Your task to perform on an android device: turn pop-ups off in chrome Image 0: 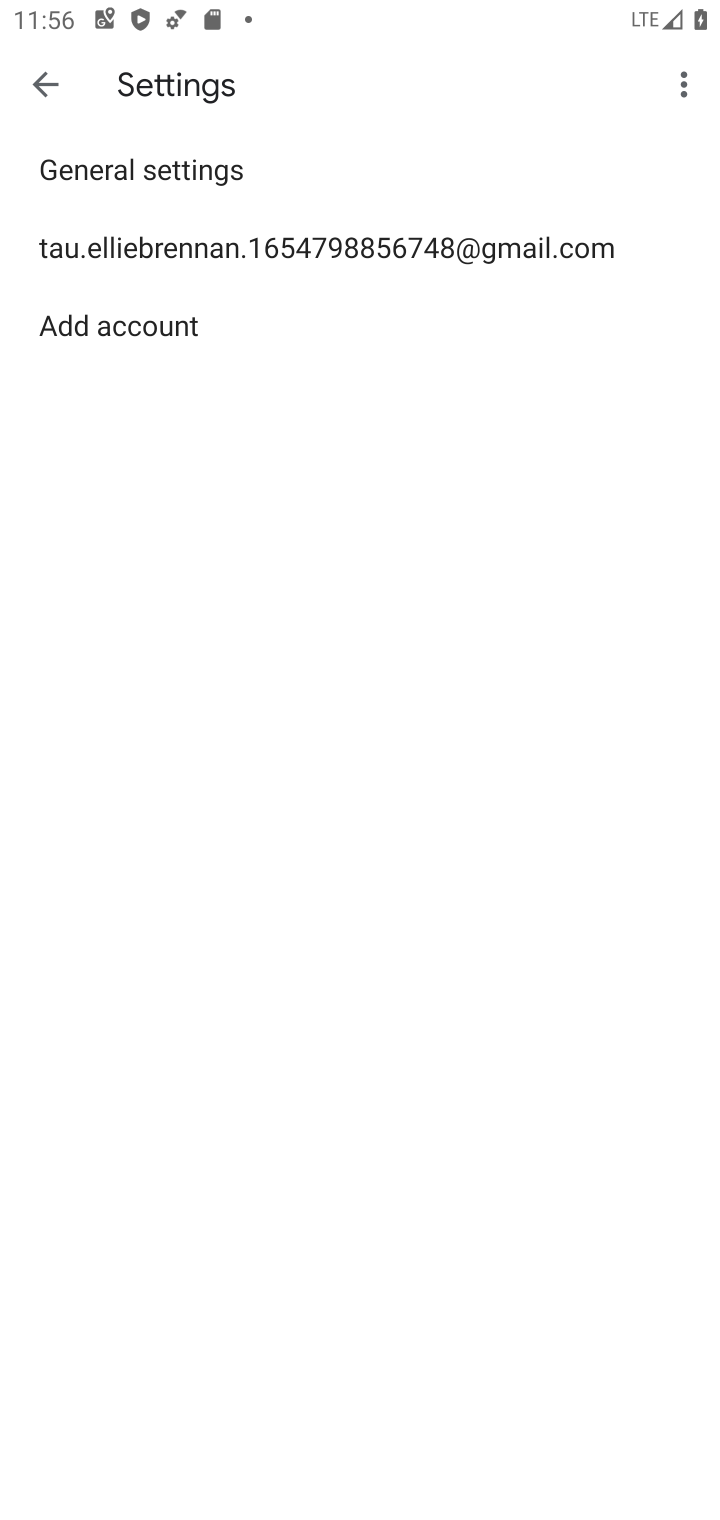
Step 0: press back button
Your task to perform on an android device: turn pop-ups off in chrome Image 1: 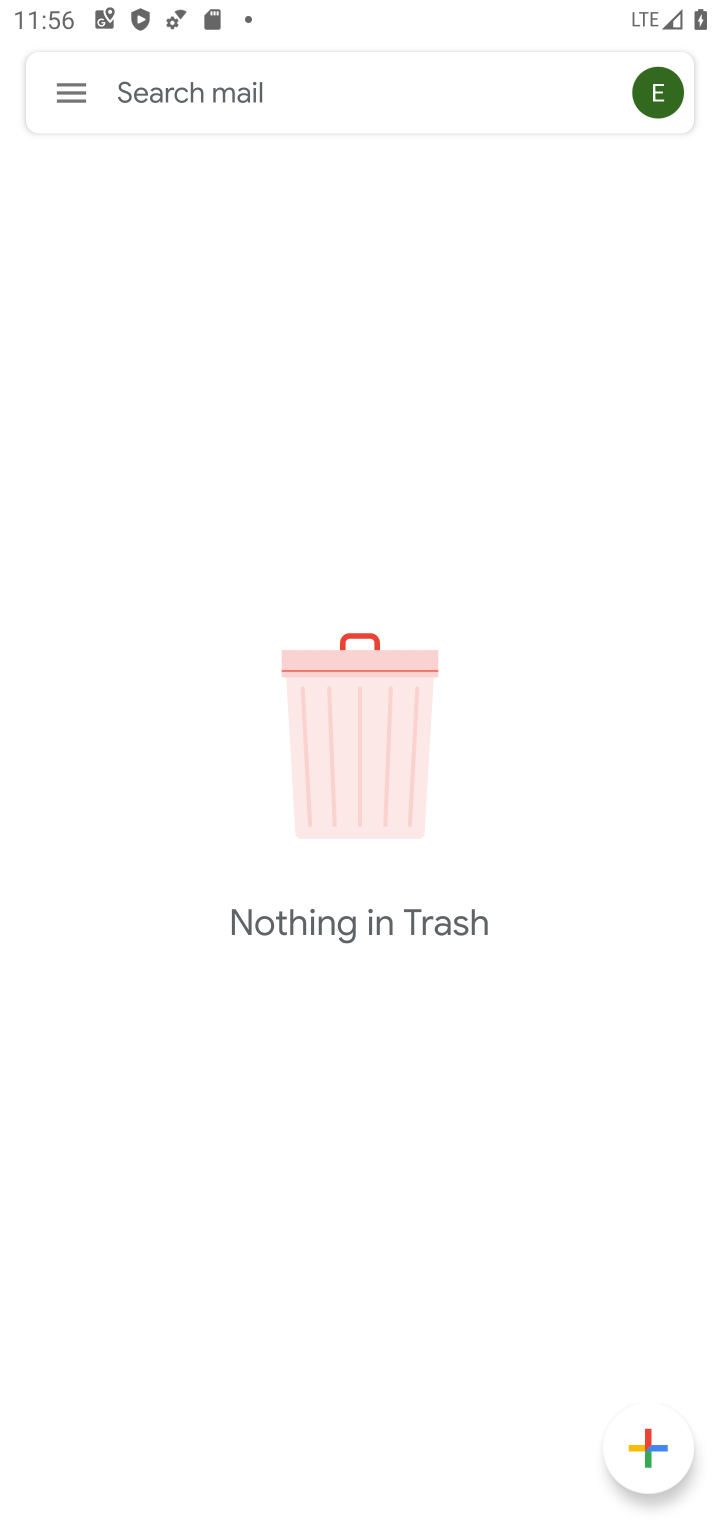
Step 1: press back button
Your task to perform on an android device: turn pop-ups off in chrome Image 2: 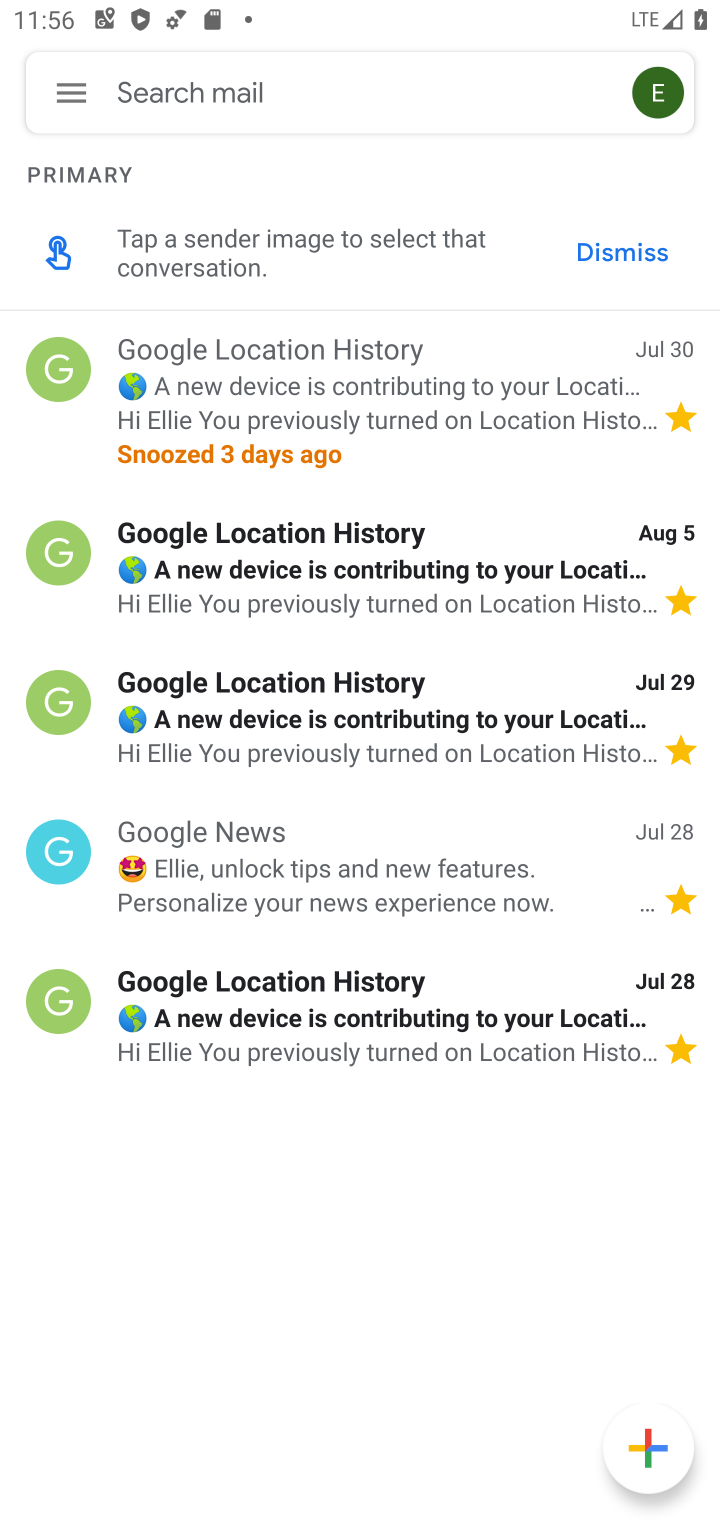
Step 2: press back button
Your task to perform on an android device: turn pop-ups off in chrome Image 3: 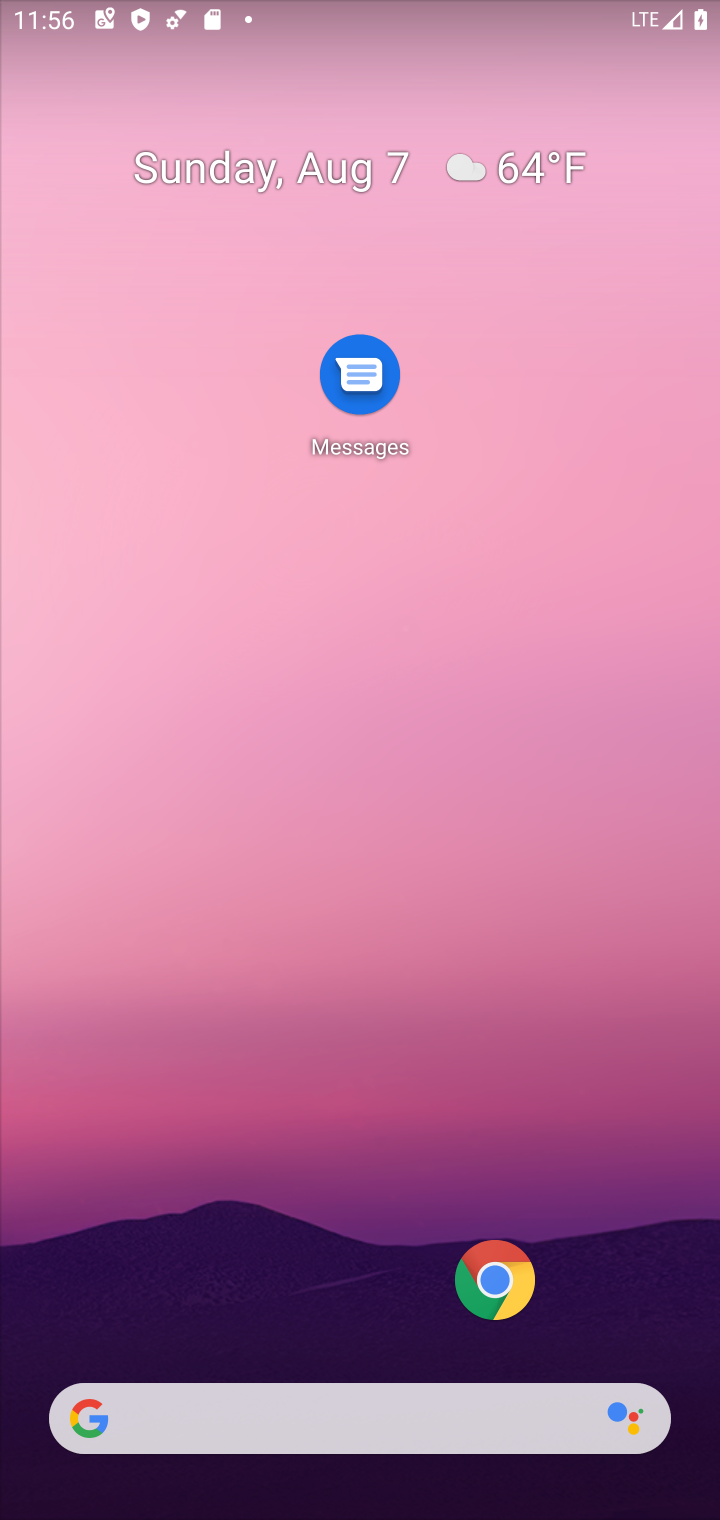
Step 3: click (484, 1250)
Your task to perform on an android device: turn pop-ups off in chrome Image 4: 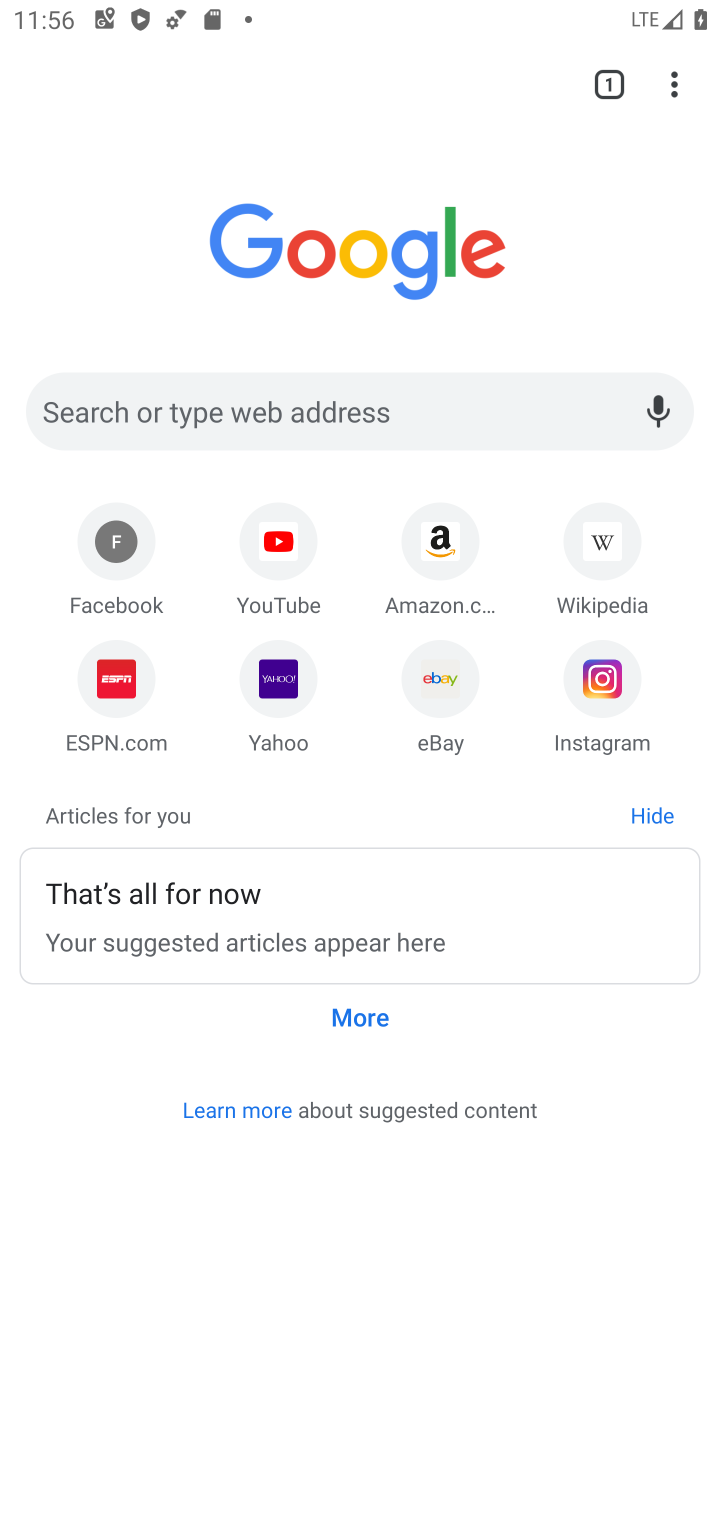
Step 4: drag from (676, 90) to (397, 721)
Your task to perform on an android device: turn pop-ups off in chrome Image 5: 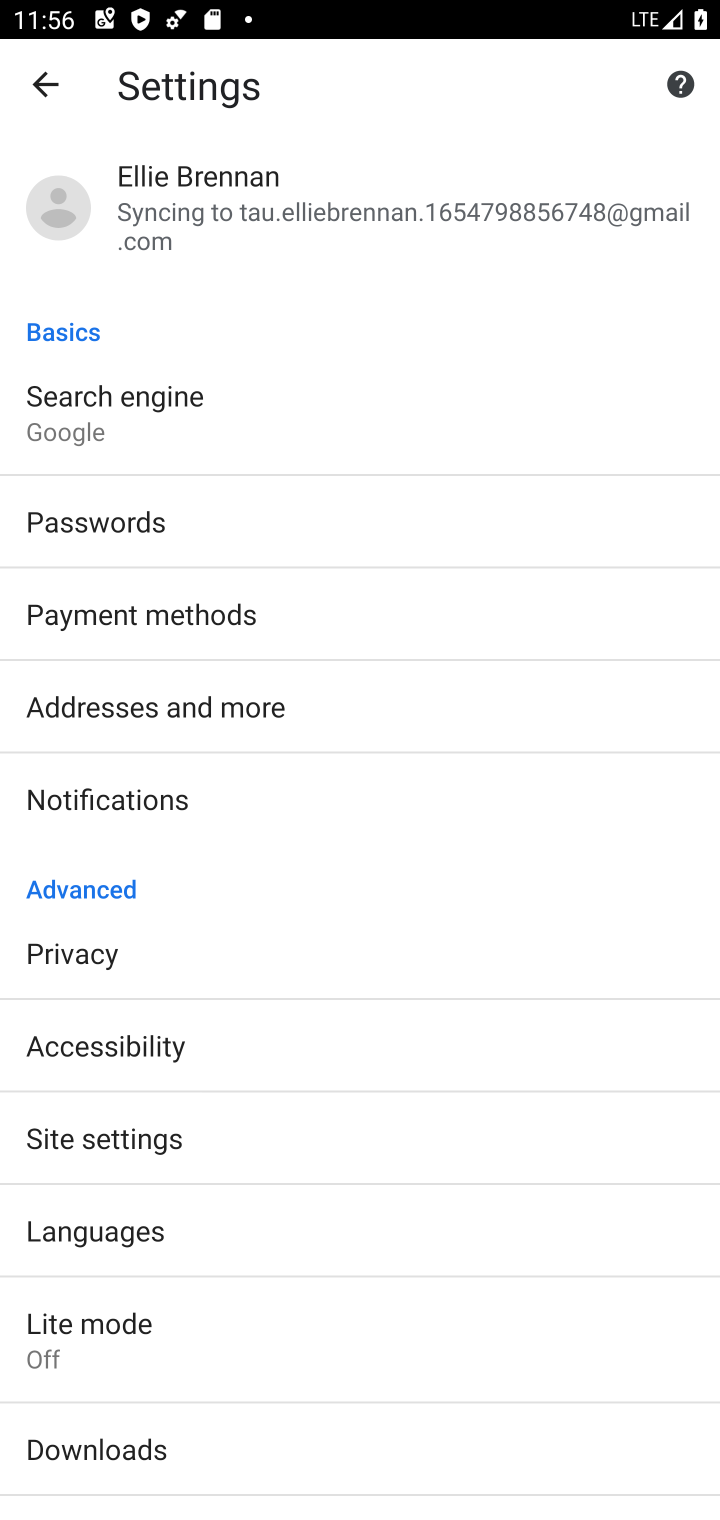
Step 5: click (150, 1157)
Your task to perform on an android device: turn pop-ups off in chrome Image 6: 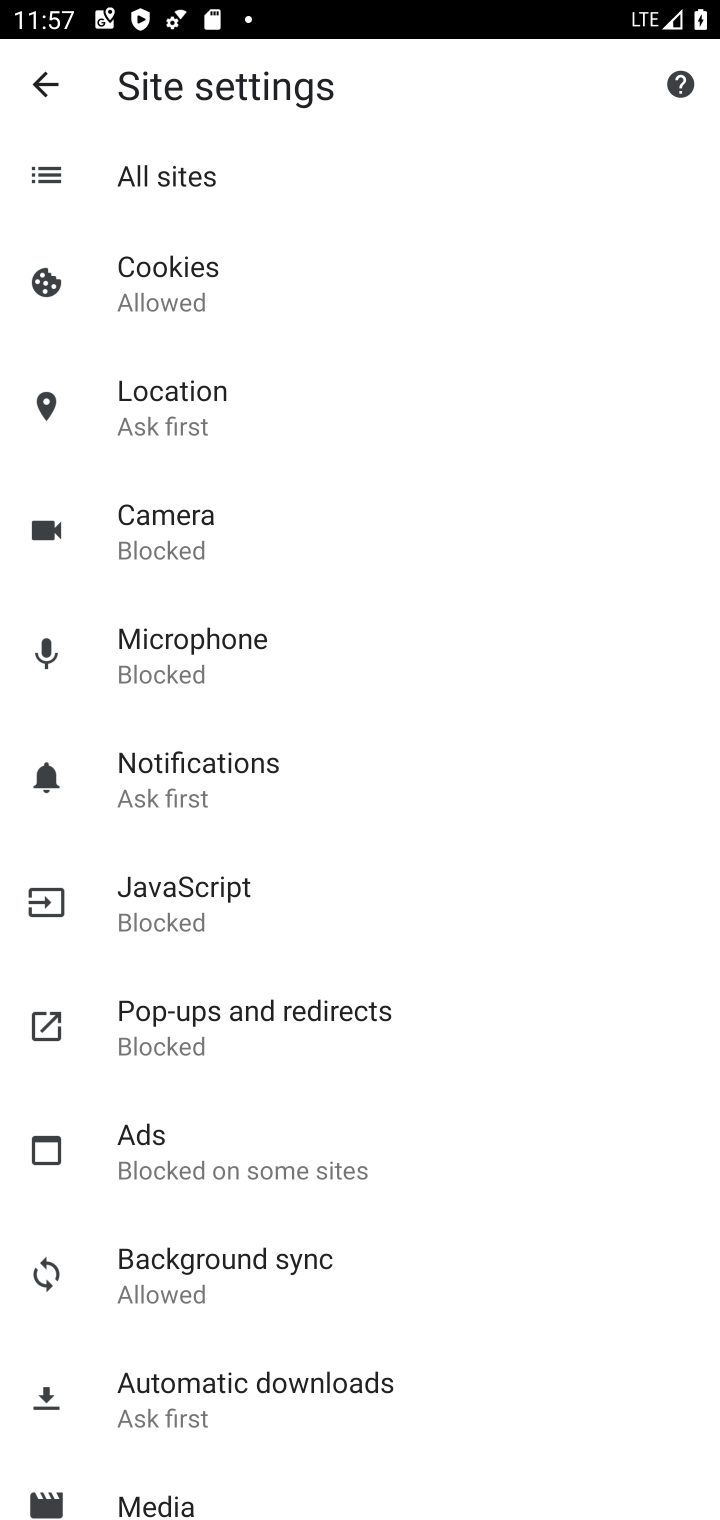
Step 6: click (258, 987)
Your task to perform on an android device: turn pop-ups off in chrome Image 7: 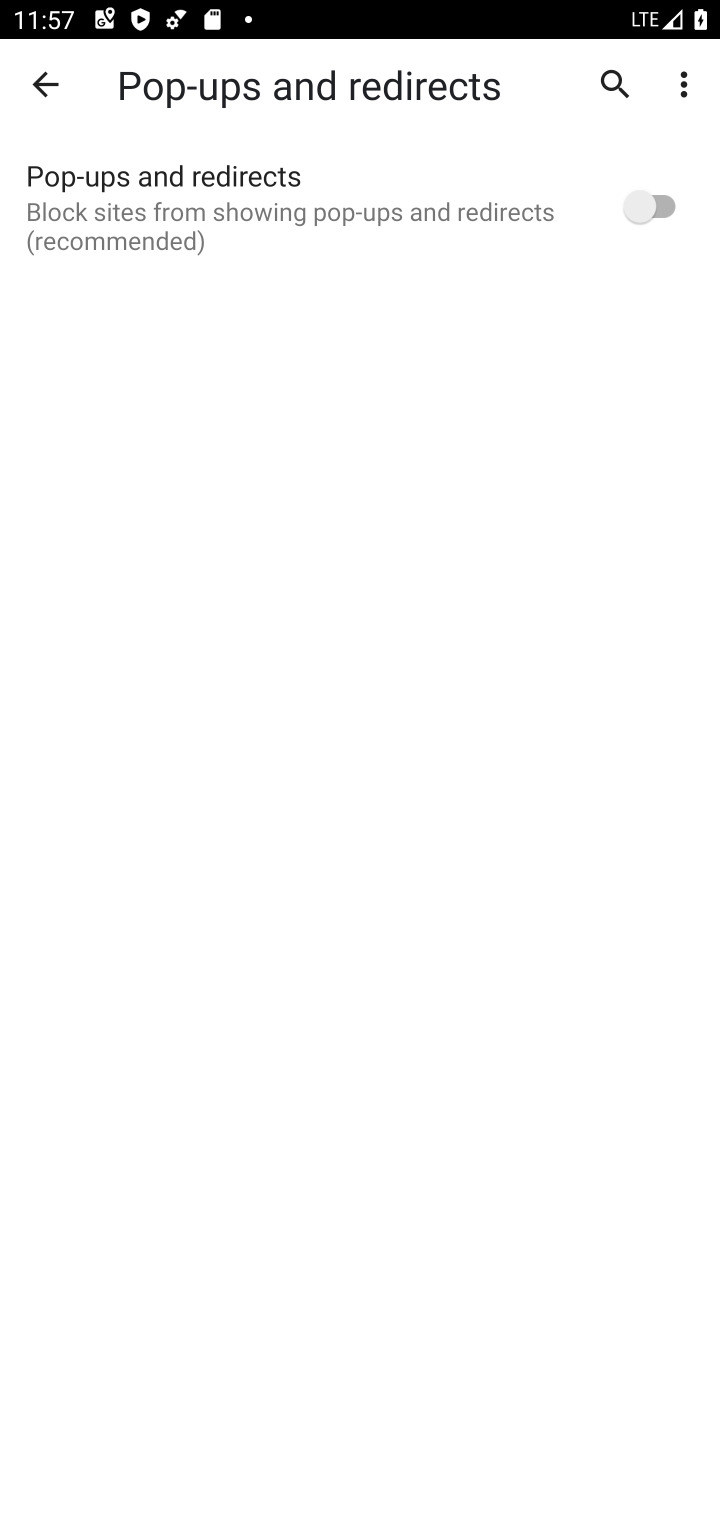
Step 7: task complete